Your task to perform on an android device: stop showing notifications on the lock screen Image 0: 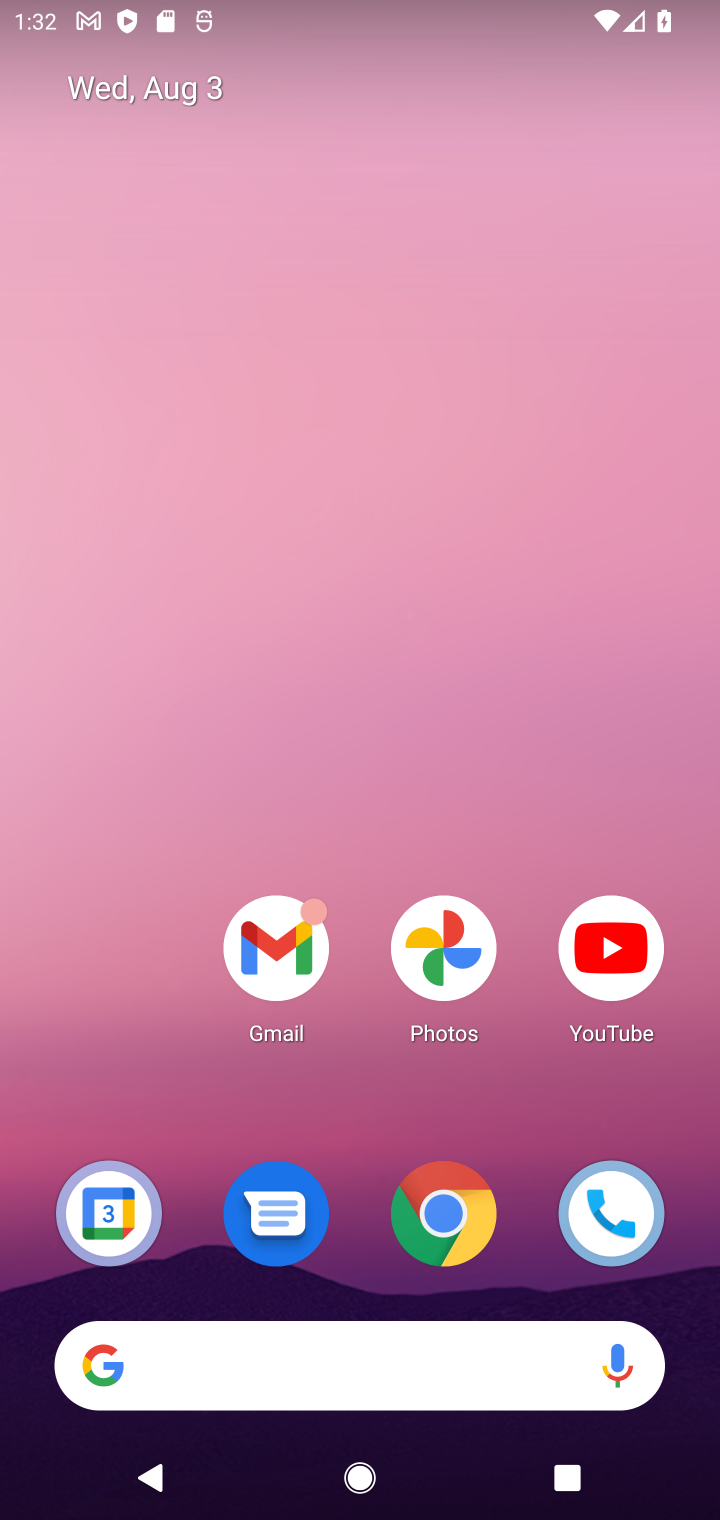
Step 0: drag from (458, 1132) to (583, 38)
Your task to perform on an android device: stop showing notifications on the lock screen Image 1: 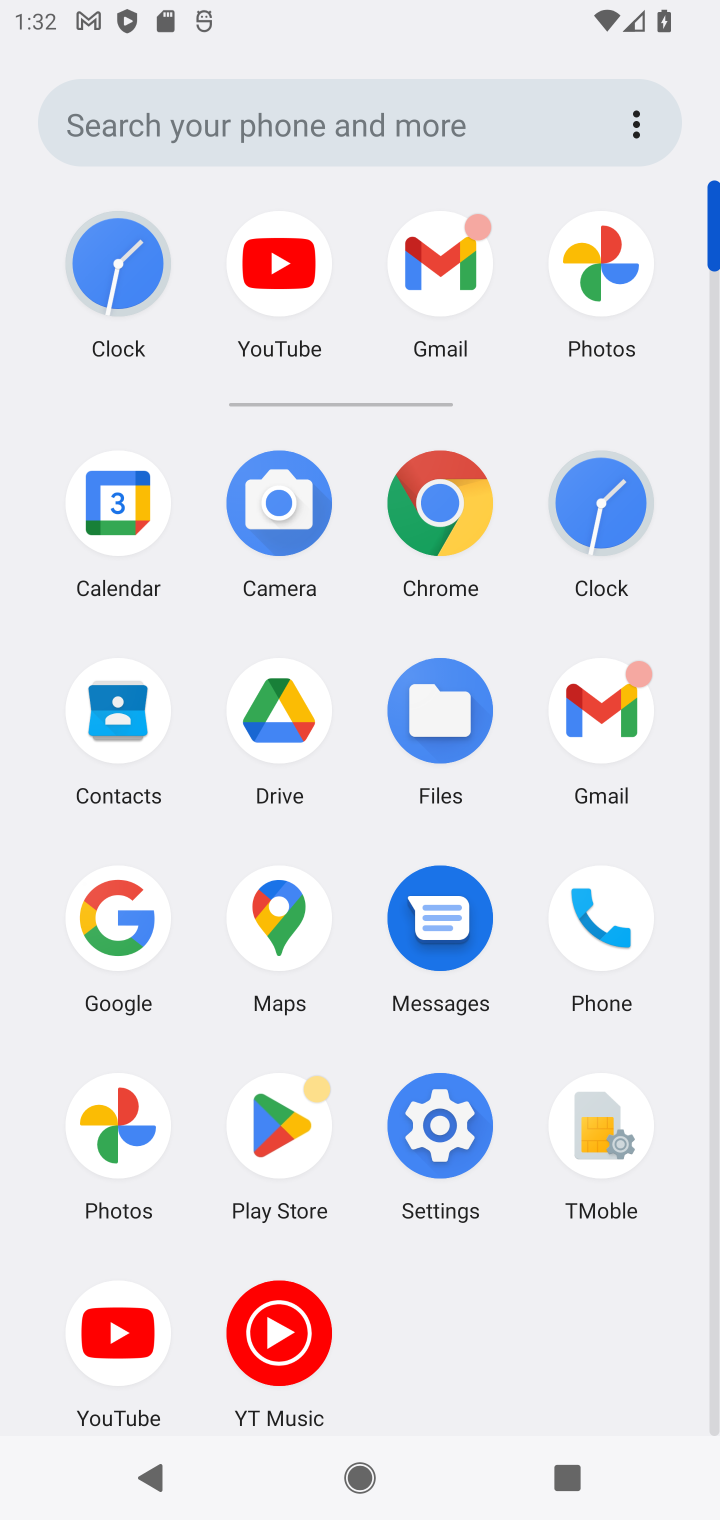
Step 1: click (440, 1116)
Your task to perform on an android device: stop showing notifications on the lock screen Image 2: 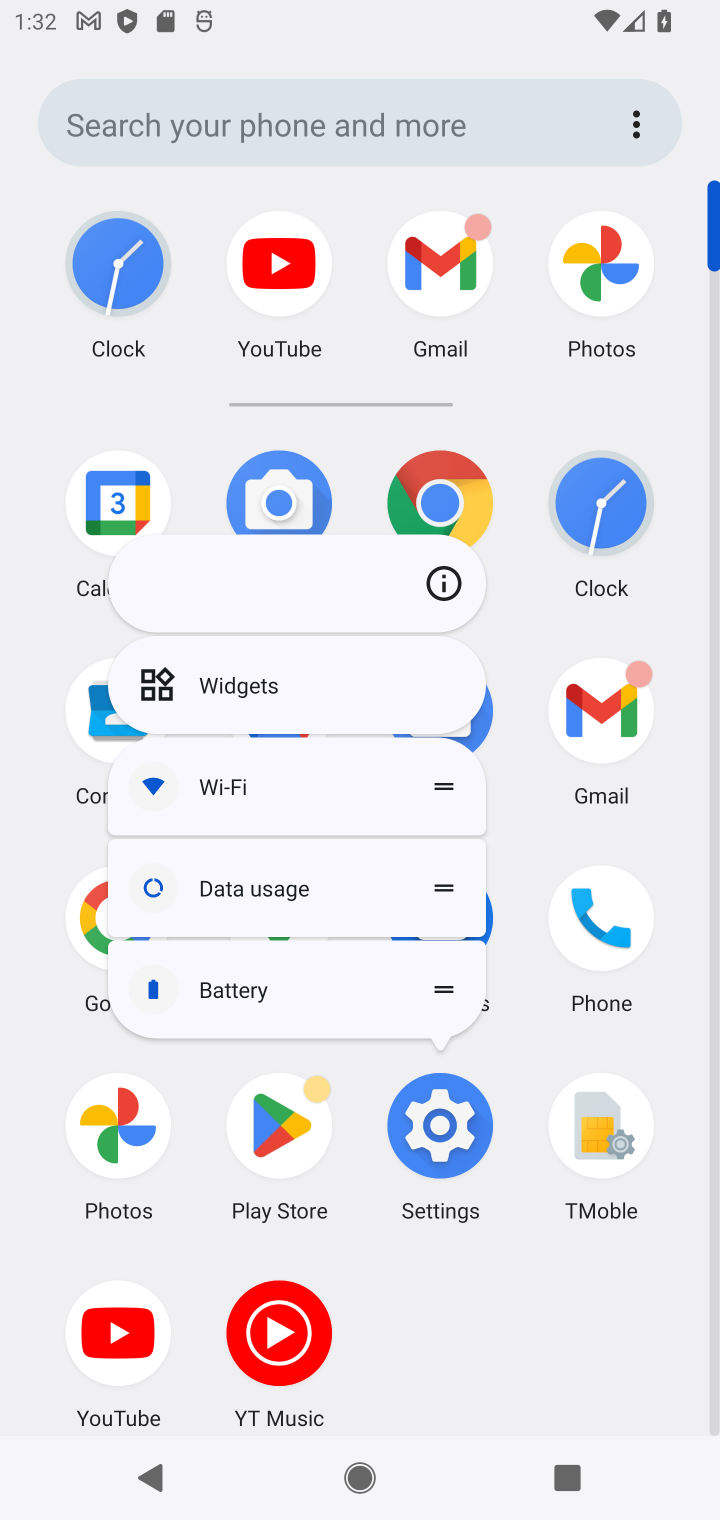
Step 2: click (449, 1134)
Your task to perform on an android device: stop showing notifications on the lock screen Image 3: 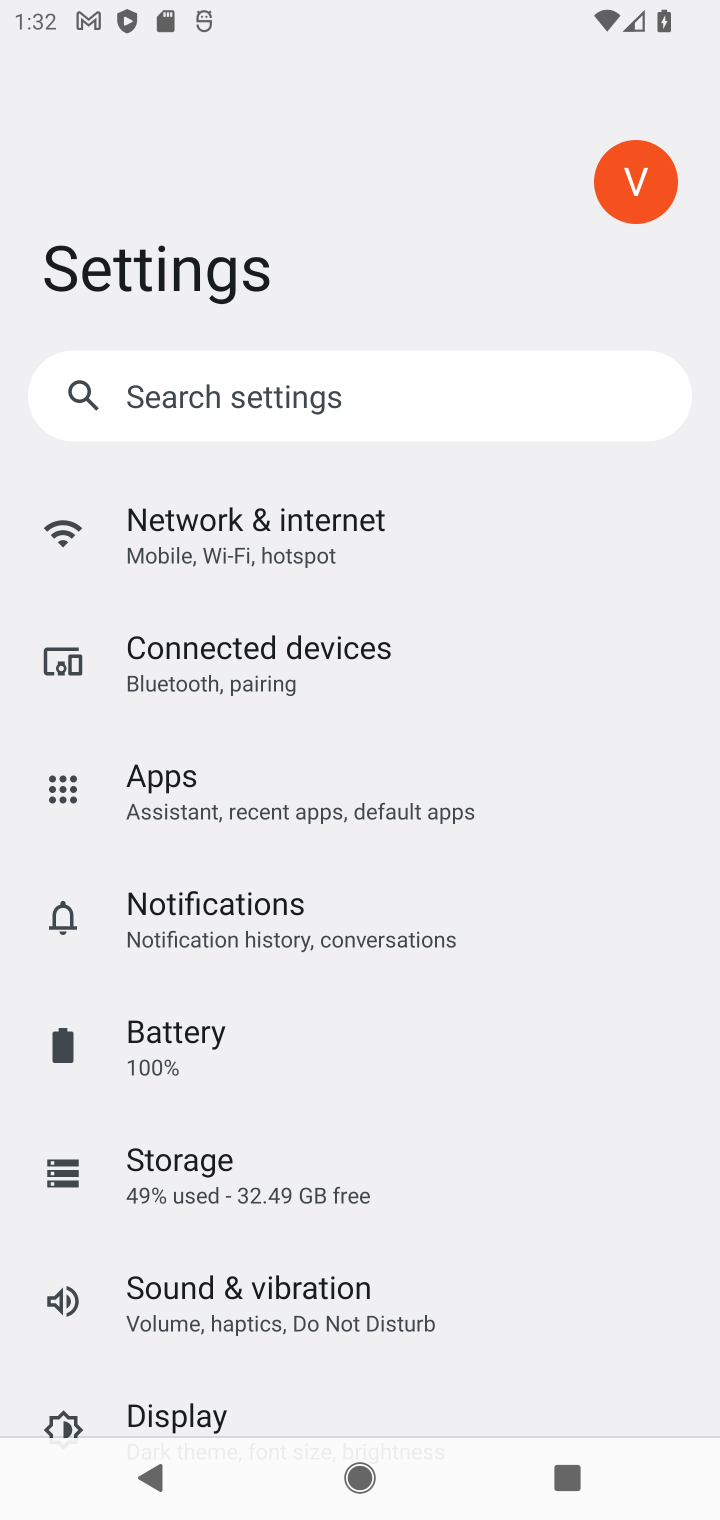
Step 3: click (250, 897)
Your task to perform on an android device: stop showing notifications on the lock screen Image 4: 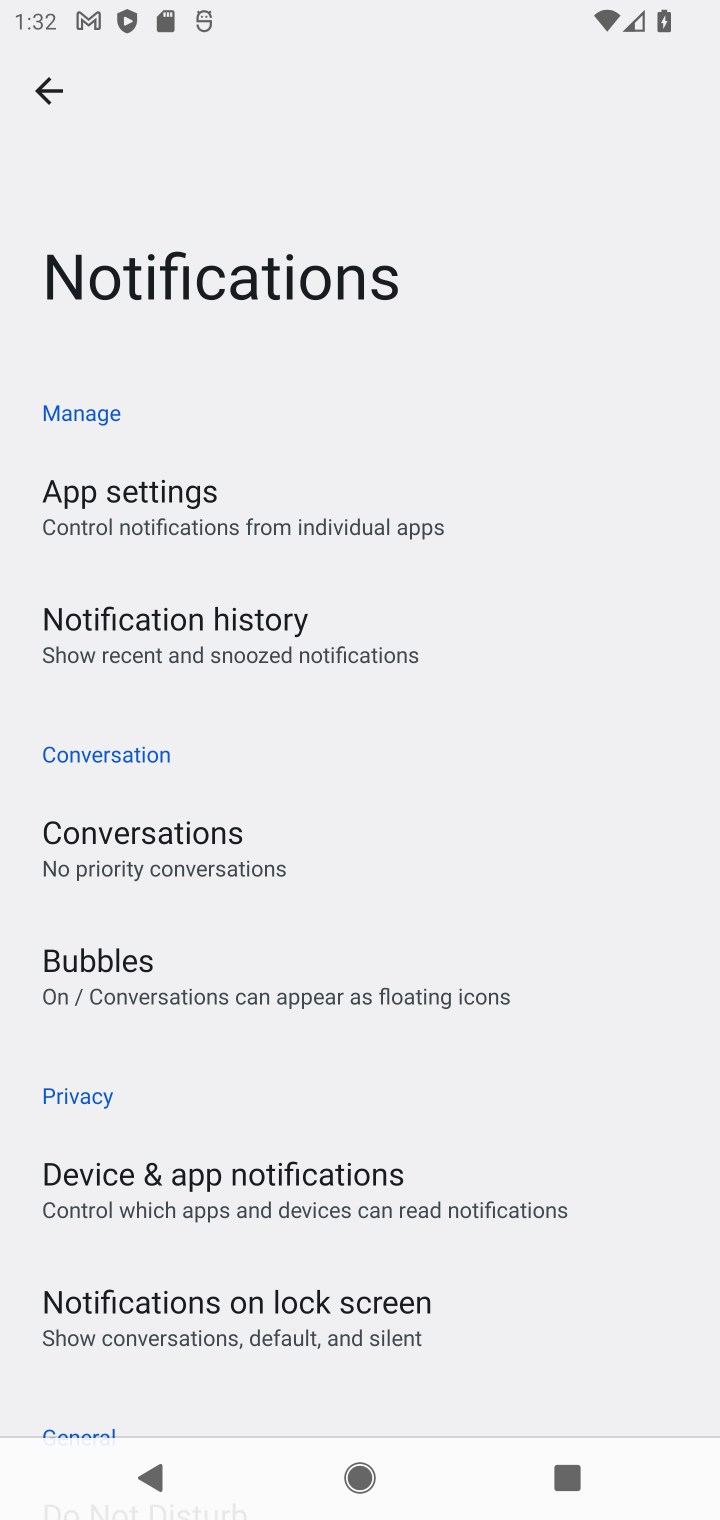
Step 4: click (258, 1299)
Your task to perform on an android device: stop showing notifications on the lock screen Image 5: 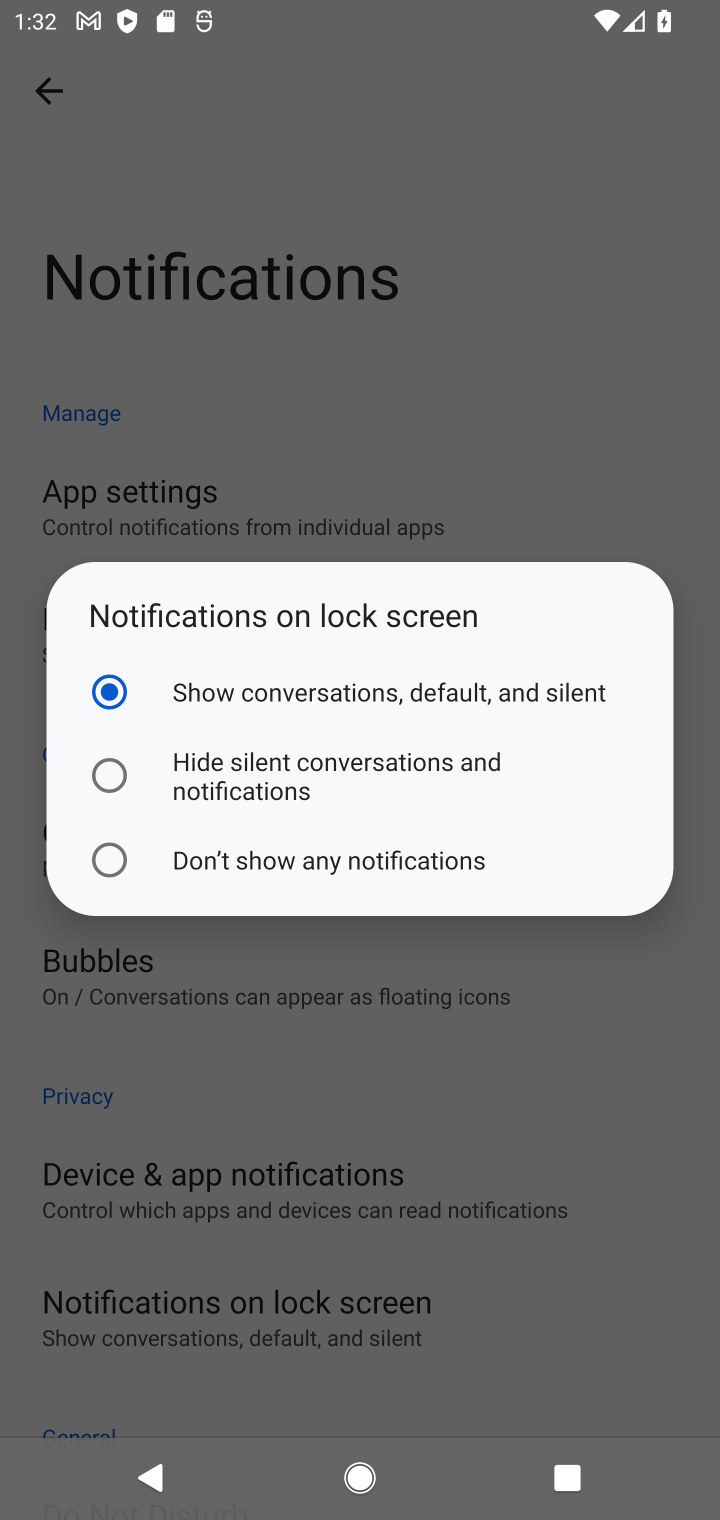
Step 5: click (119, 847)
Your task to perform on an android device: stop showing notifications on the lock screen Image 6: 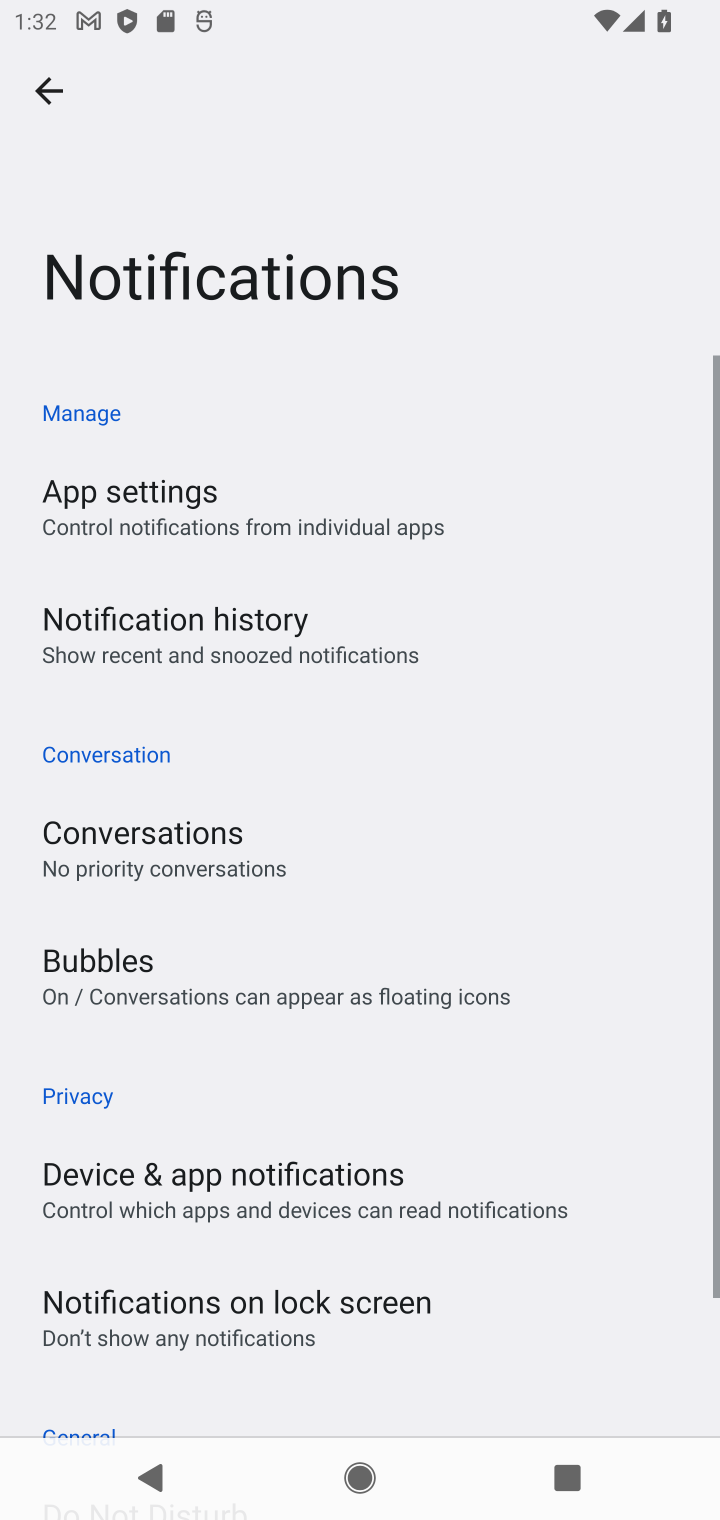
Step 6: task complete